Your task to perform on an android device: find photos in the google photos app Image 0: 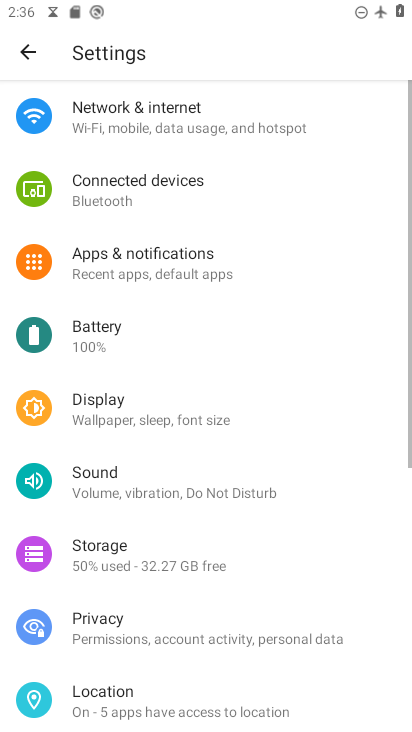
Step 0: press home button
Your task to perform on an android device: find photos in the google photos app Image 1: 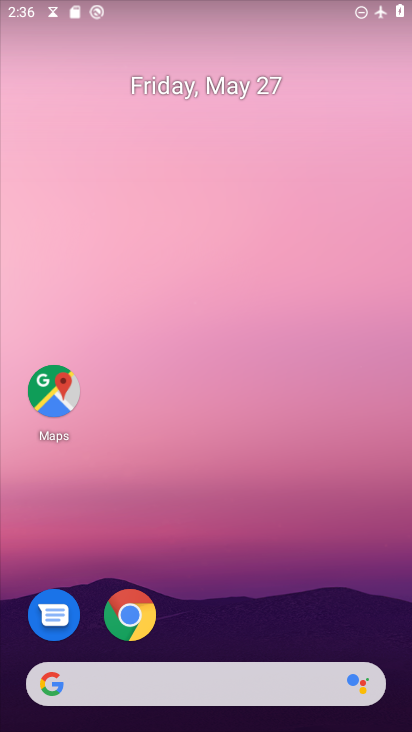
Step 1: drag from (180, 625) to (313, 139)
Your task to perform on an android device: find photos in the google photos app Image 2: 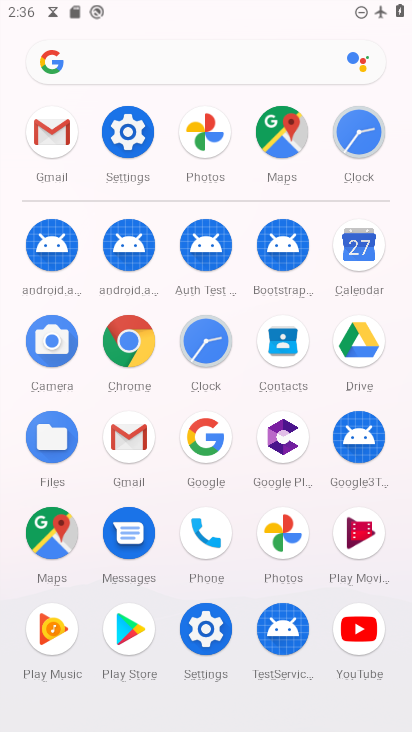
Step 2: click (293, 535)
Your task to perform on an android device: find photos in the google photos app Image 3: 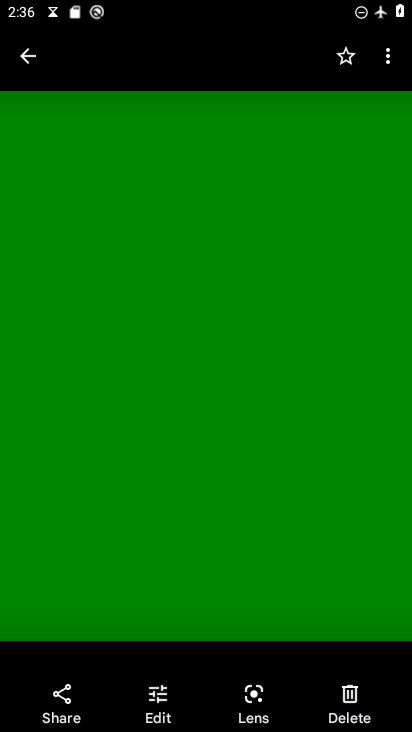
Step 3: task complete